Your task to perform on an android device: open chrome and create a bookmark for the current page Image 0: 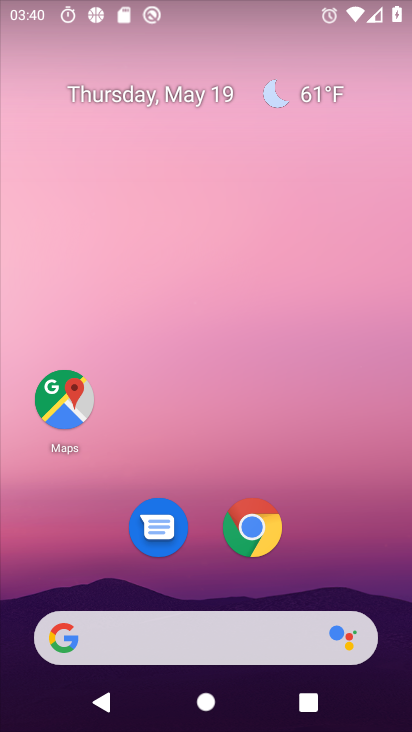
Step 0: click (260, 538)
Your task to perform on an android device: open chrome and create a bookmark for the current page Image 1: 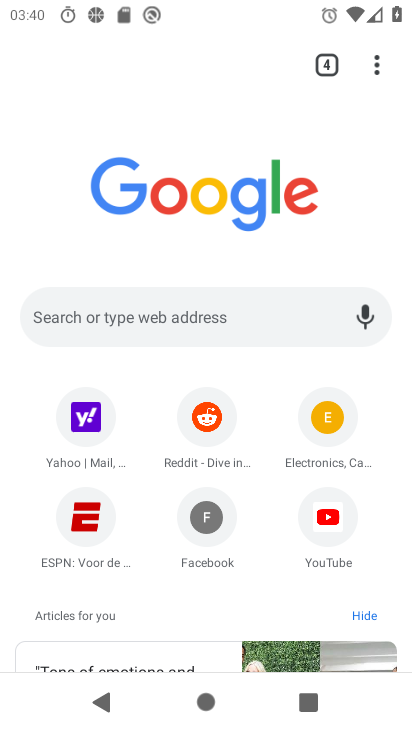
Step 1: task complete